Your task to perform on an android device: Go to calendar. Show me events next week Image 0: 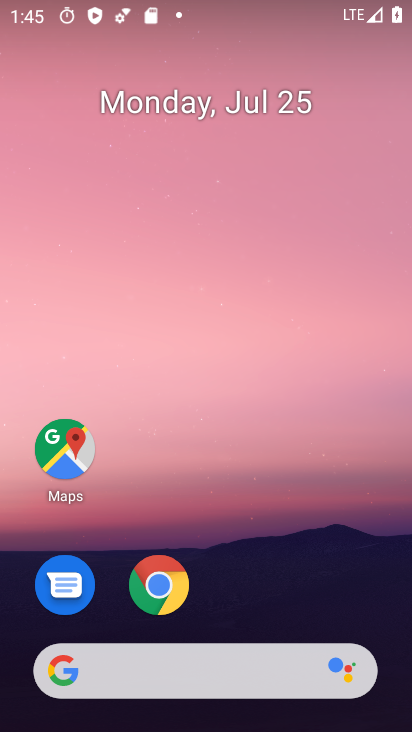
Step 0: drag from (218, 655) to (195, 287)
Your task to perform on an android device: Go to calendar. Show me events next week Image 1: 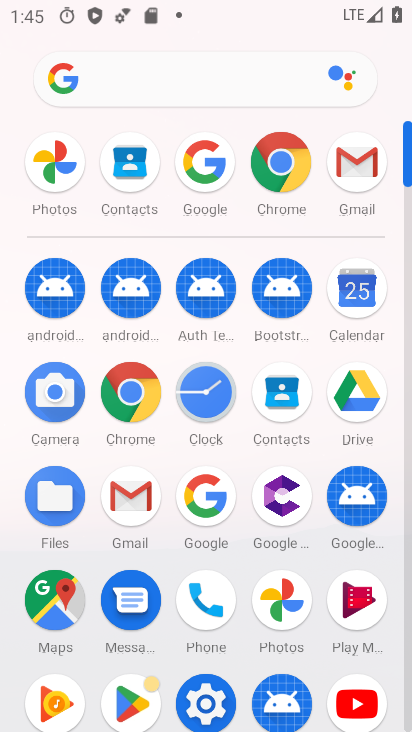
Step 1: click (361, 299)
Your task to perform on an android device: Go to calendar. Show me events next week Image 2: 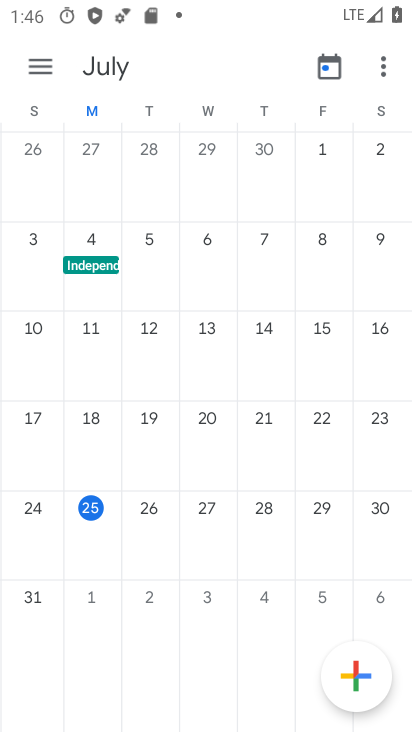
Step 2: click (33, 63)
Your task to perform on an android device: Go to calendar. Show me events next week Image 3: 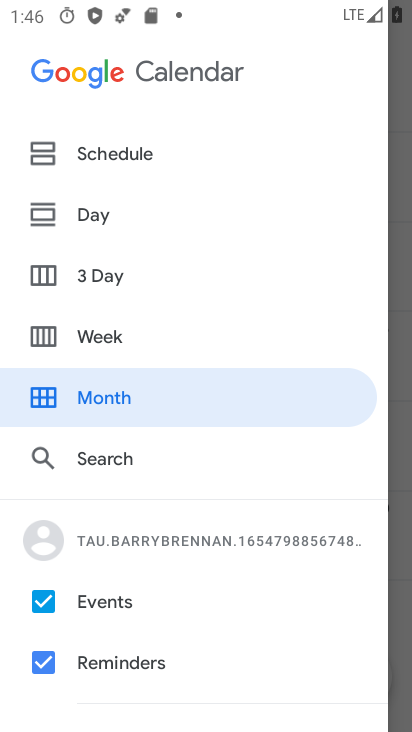
Step 3: click (103, 336)
Your task to perform on an android device: Go to calendar. Show me events next week Image 4: 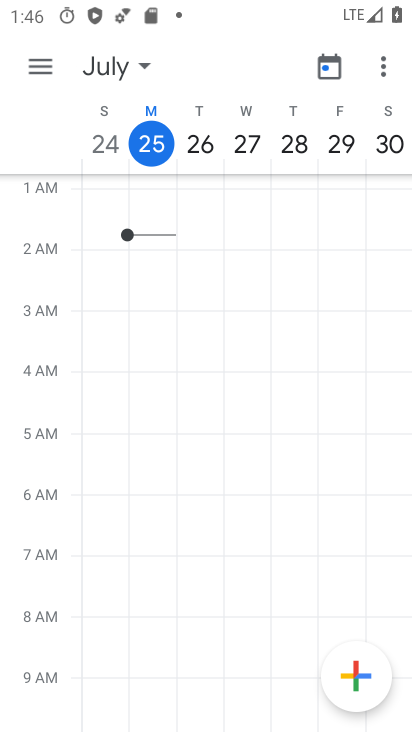
Step 4: task complete